Your task to perform on an android device: Show me popular games on the Play Store Image 0: 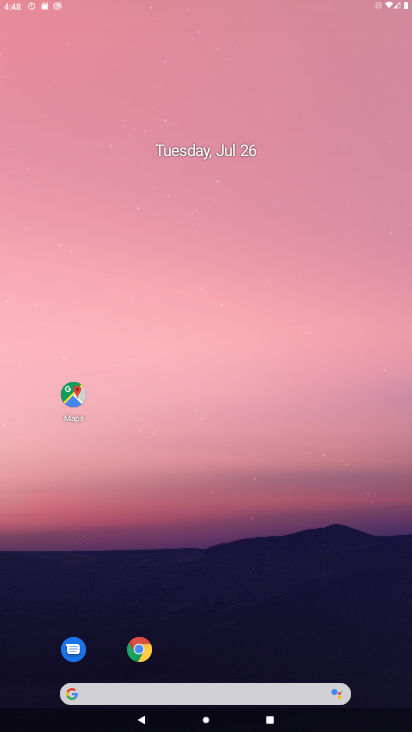
Step 0: drag from (345, 646) to (151, 0)
Your task to perform on an android device: Show me popular games on the Play Store Image 1: 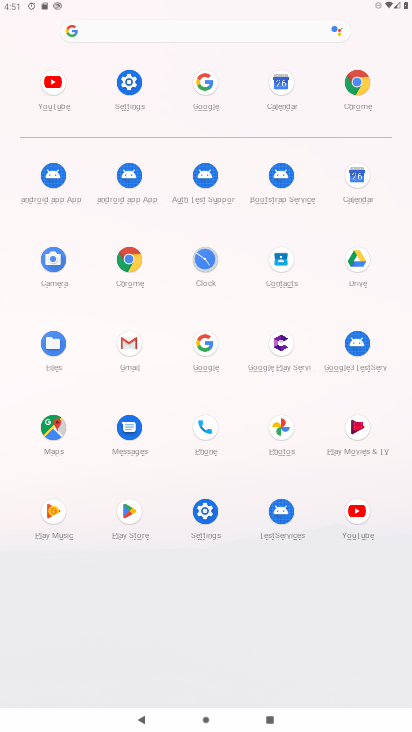
Step 1: click (120, 516)
Your task to perform on an android device: Show me popular games on the Play Store Image 2: 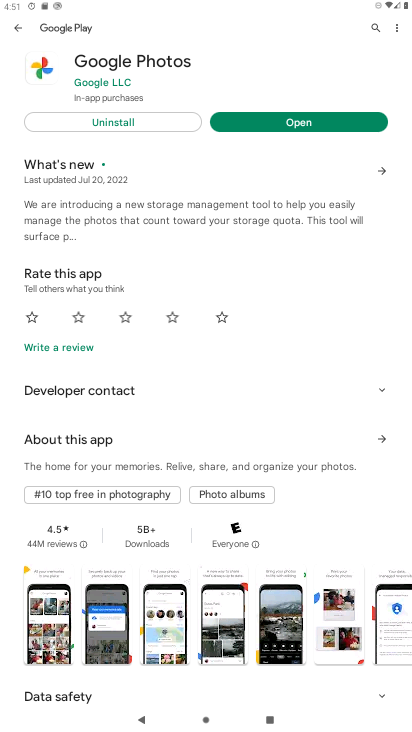
Step 2: press back button
Your task to perform on an android device: Show me popular games on the Play Store Image 3: 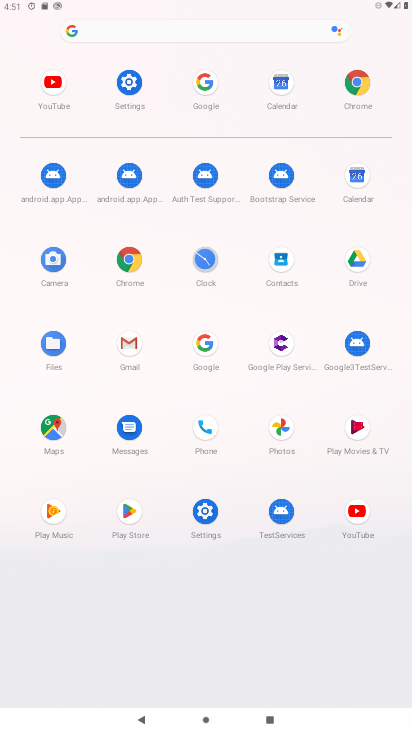
Step 3: click (136, 485)
Your task to perform on an android device: Show me popular games on the Play Store Image 4: 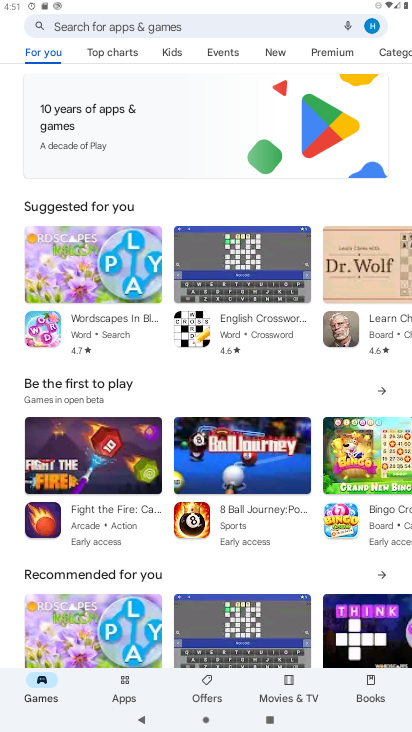
Step 4: click (157, 20)
Your task to perform on an android device: Show me popular games on the Play Store Image 5: 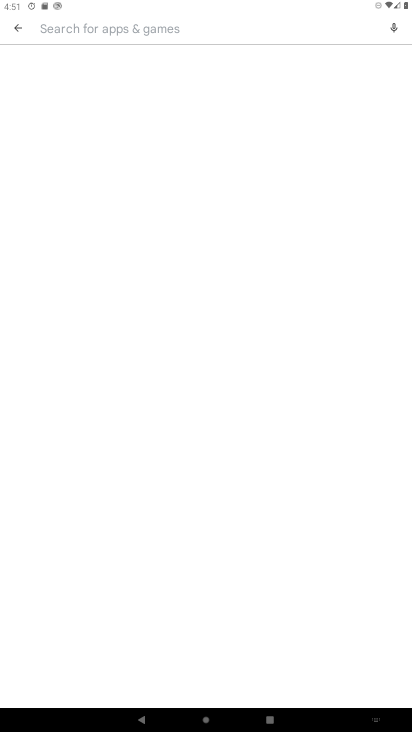
Step 5: type "popular games"
Your task to perform on an android device: Show me popular games on the Play Store Image 6: 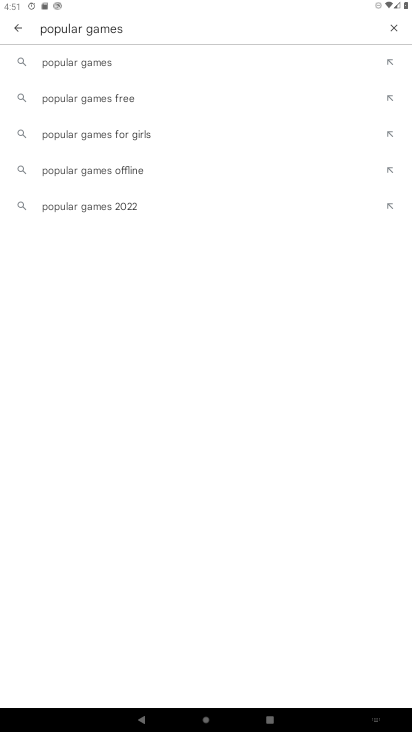
Step 6: click (100, 57)
Your task to perform on an android device: Show me popular games on the Play Store Image 7: 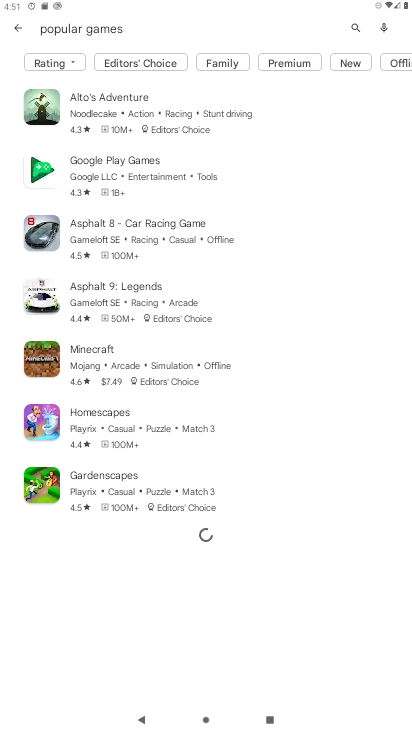
Step 7: task complete